Your task to perform on an android device: delete a single message in the gmail app Image 0: 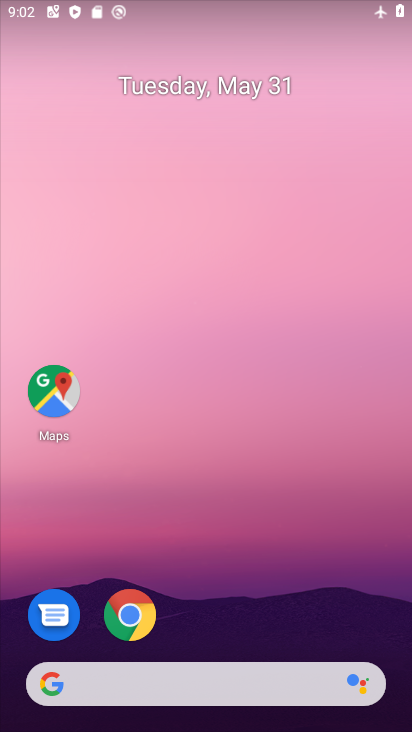
Step 0: drag from (379, 625) to (340, 381)
Your task to perform on an android device: delete a single message in the gmail app Image 1: 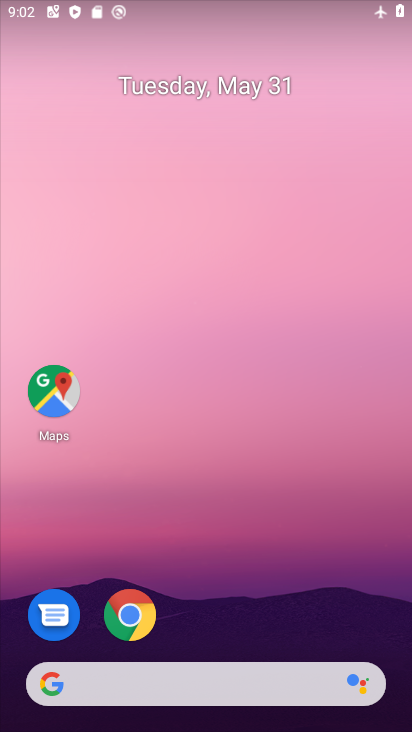
Step 1: drag from (340, 594) to (284, 171)
Your task to perform on an android device: delete a single message in the gmail app Image 2: 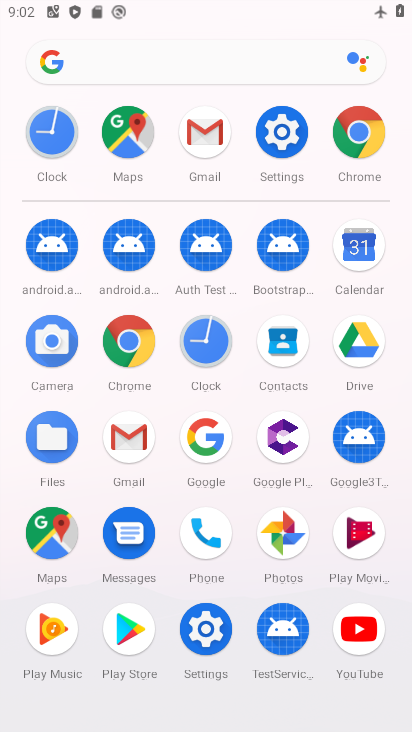
Step 2: click (126, 432)
Your task to perform on an android device: delete a single message in the gmail app Image 3: 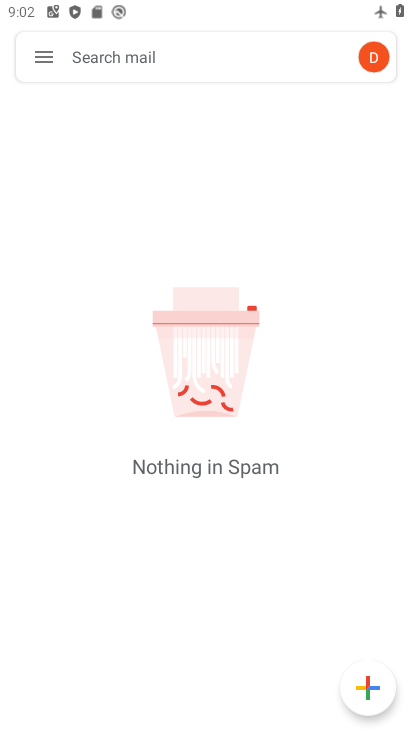
Step 3: click (38, 60)
Your task to perform on an android device: delete a single message in the gmail app Image 4: 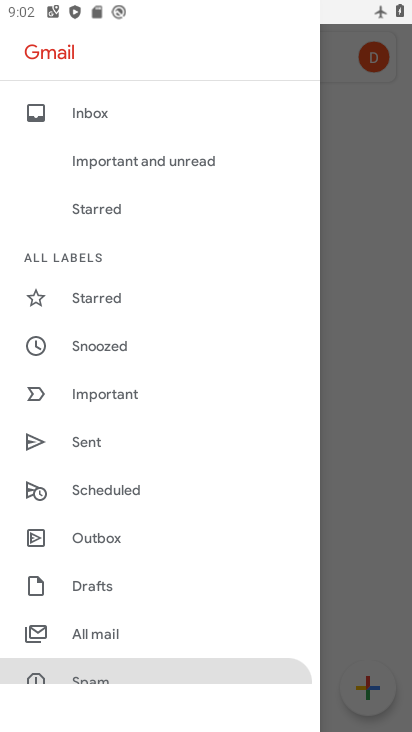
Step 4: drag from (134, 575) to (156, 298)
Your task to perform on an android device: delete a single message in the gmail app Image 5: 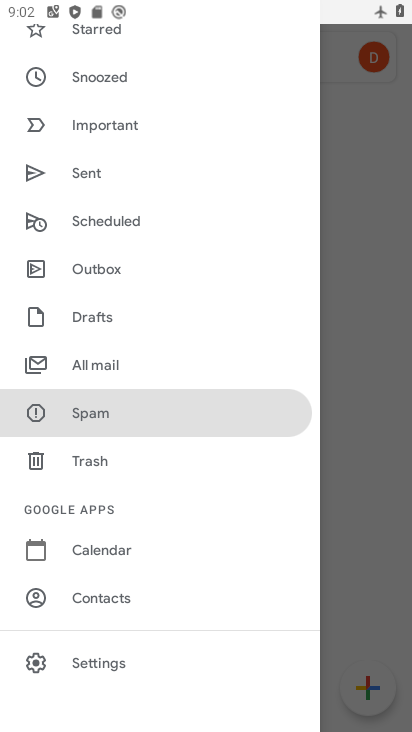
Step 5: click (97, 363)
Your task to perform on an android device: delete a single message in the gmail app Image 6: 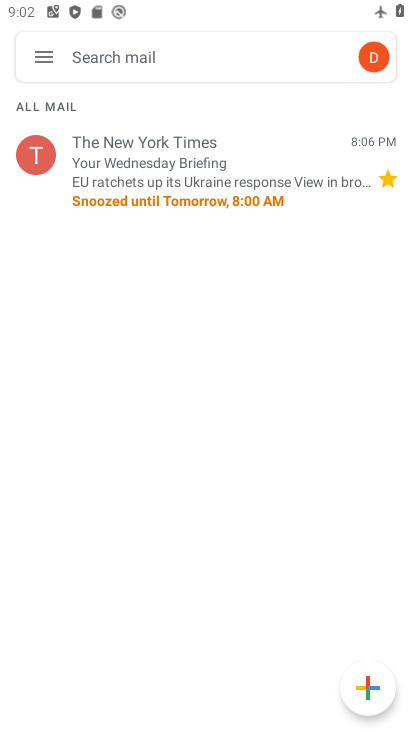
Step 6: click (187, 151)
Your task to perform on an android device: delete a single message in the gmail app Image 7: 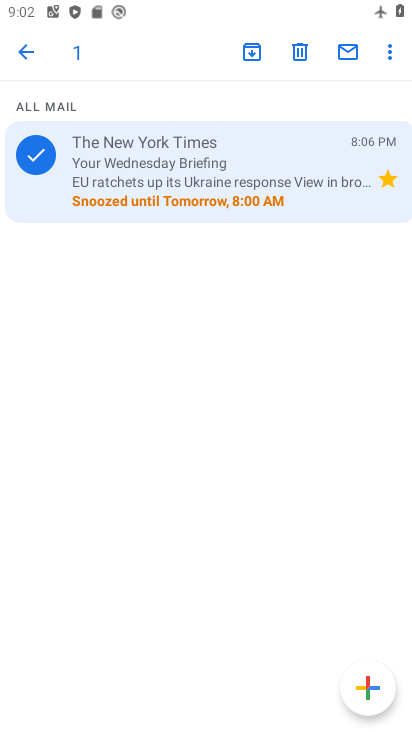
Step 7: click (302, 52)
Your task to perform on an android device: delete a single message in the gmail app Image 8: 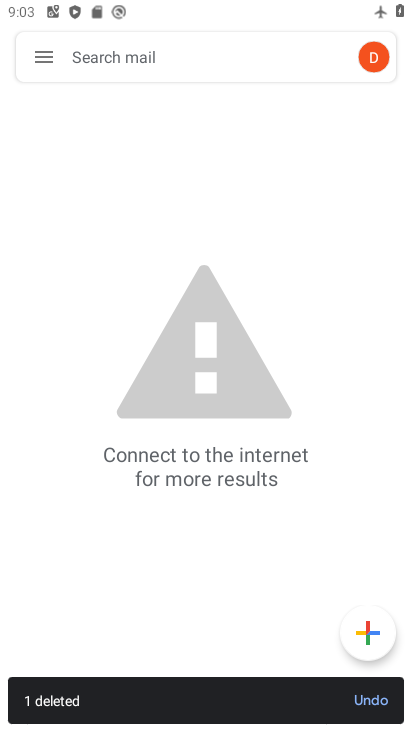
Step 8: task complete